Your task to perform on an android device: Go to notification settings Image 0: 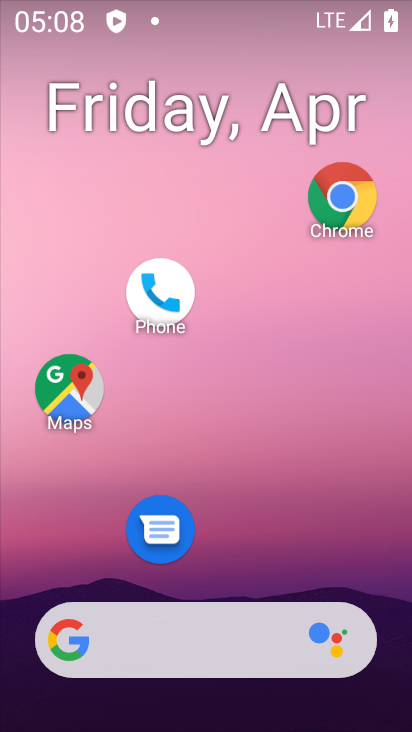
Step 0: drag from (259, 579) to (317, 19)
Your task to perform on an android device: Go to notification settings Image 1: 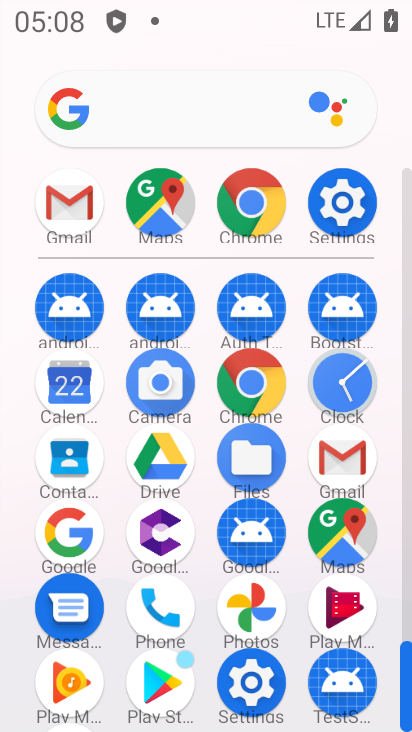
Step 1: click (249, 673)
Your task to perform on an android device: Go to notification settings Image 2: 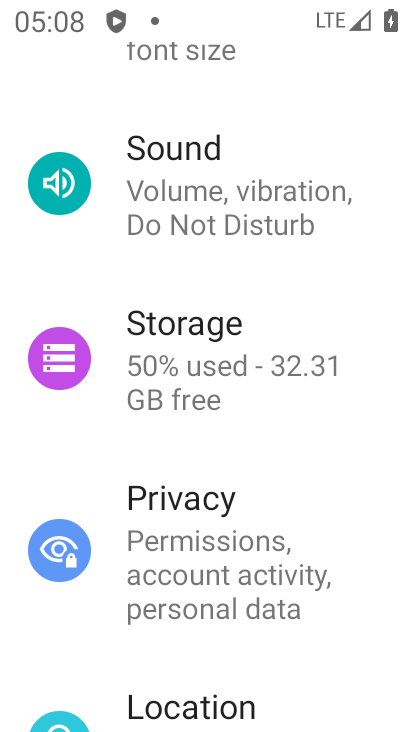
Step 2: drag from (110, 112) to (120, 731)
Your task to perform on an android device: Go to notification settings Image 3: 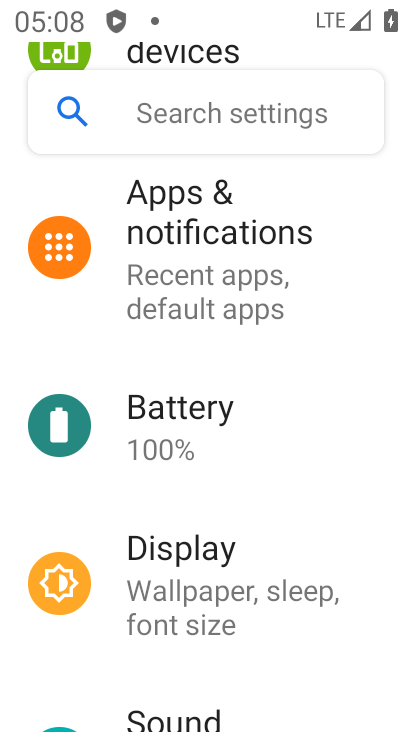
Step 3: click (117, 238)
Your task to perform on an android device: Go to notification settings Image 4: 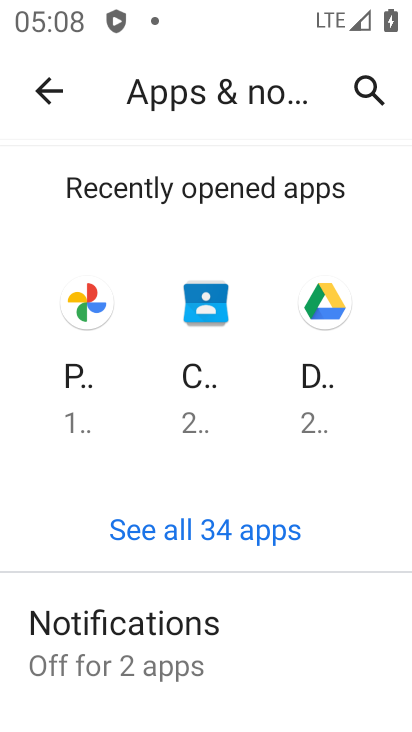
Step 4: click (220, 647)
Your task to perform on an android device: Go to notification settings Image 5: 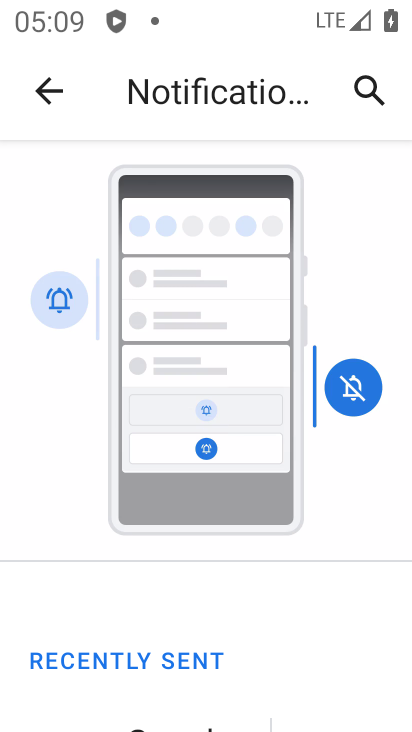
Step 5: drag from (242, 679) to (290, 227)
Your task to perform on an android device: Go to notification settings Image 6: 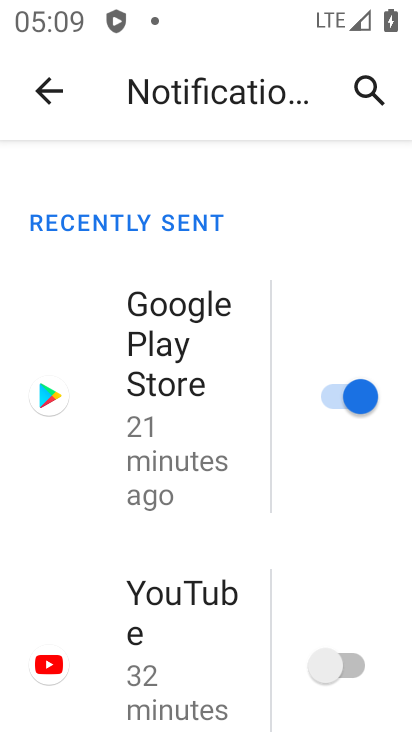
Step 6: click (330, 405)
Your task to perform on an android device: Go to notification settings Image 7: 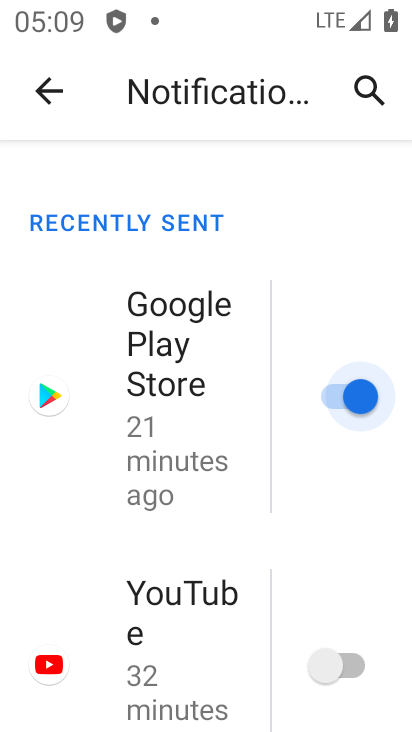
Step 7: click (343, 664)
Your task to perform on an android device: Go to notification settings Image 8: 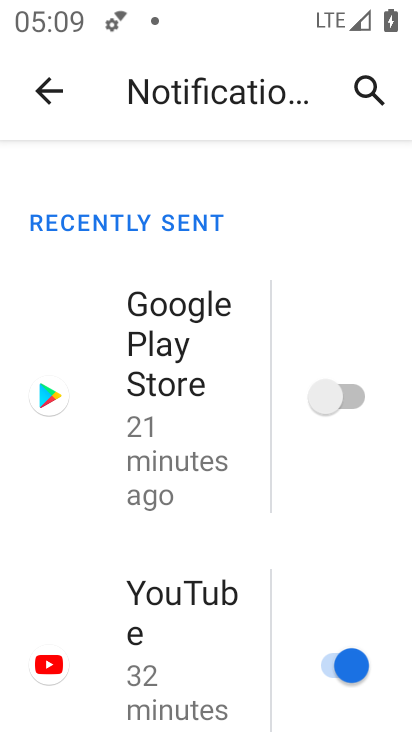
Step 8: drag from (242, 653) to (292, 200)
Your task to perform on an android device: Go to notification settings Image 9: 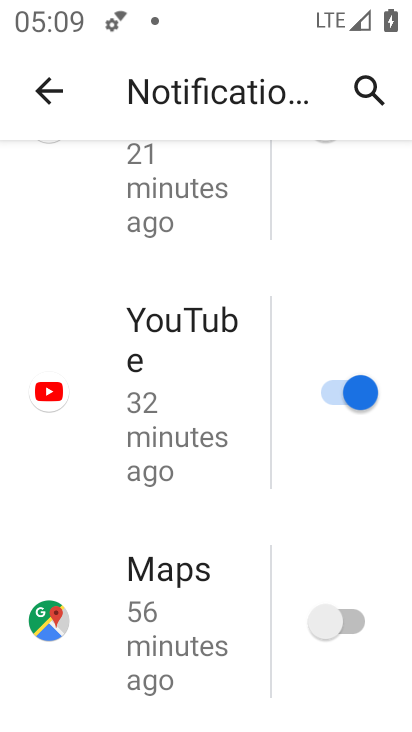
Step 9: click (348, 614)
Your task to perform on an android device: Go to notification settings Image 10: 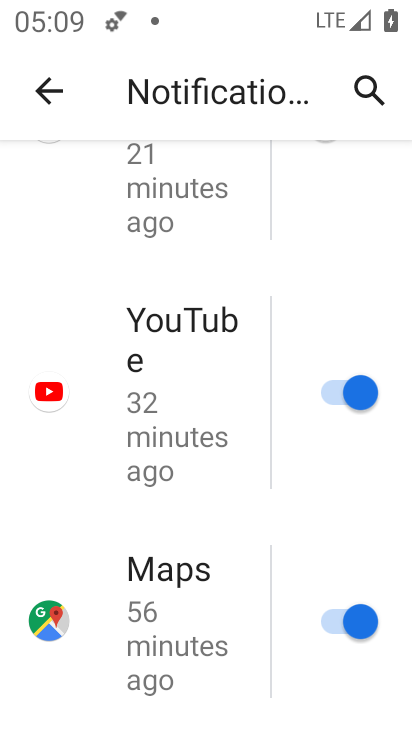
Step 10: drag from (208, 670) to (238, 222)
Your task to perform on an android device: Go to notification settings Image 11: 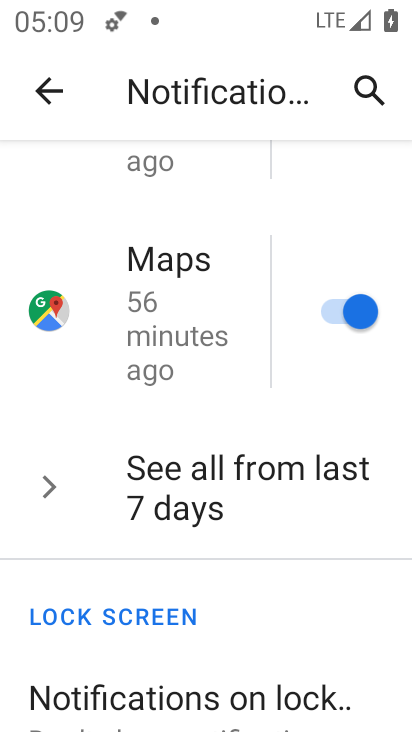
Step 11: drag from (208, 647) to (254, 178)
Your task to perform on an android device: Go to notification settings Image 12: 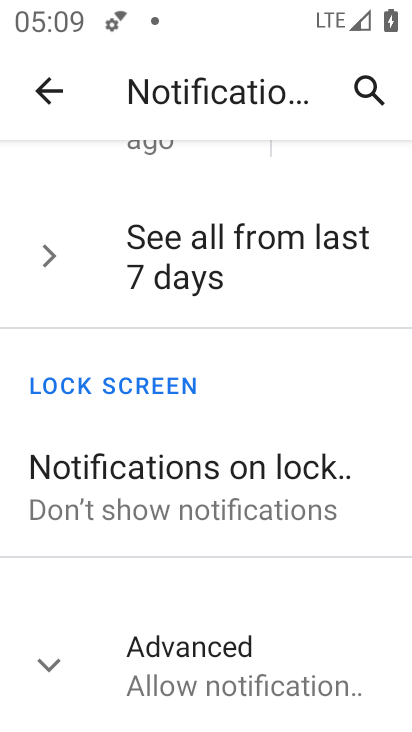
Step 12: click (169, 482)
Your task to perform on an android device: Go to notification settings Image 13: 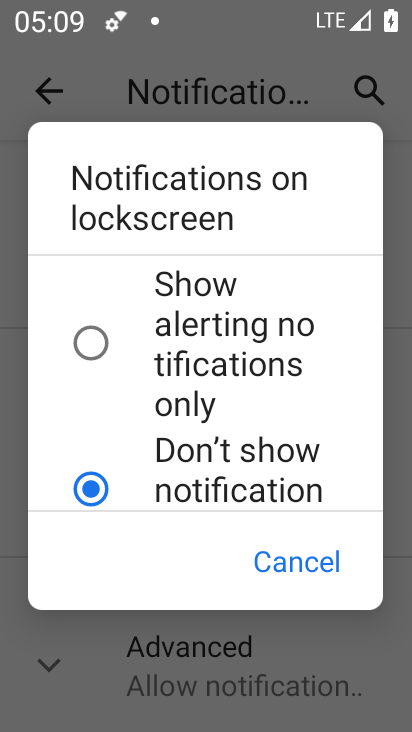
Step 13: click (92, 332)
Your task to perform on an android device: Go to notification settings Image 14: 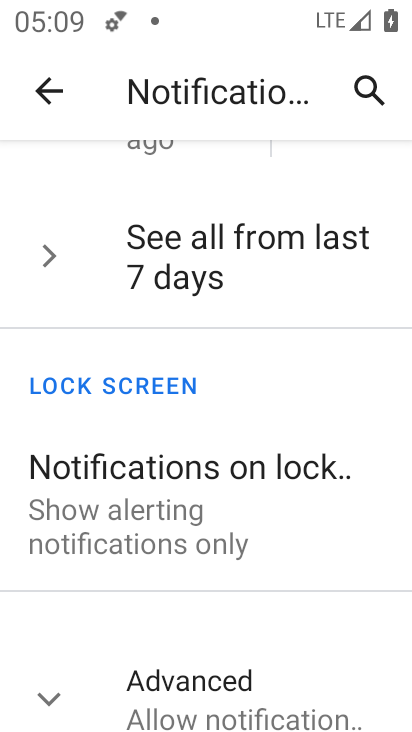
Step 14: task complete